Your task to perform on an android device: Go to internet settings Image 0: 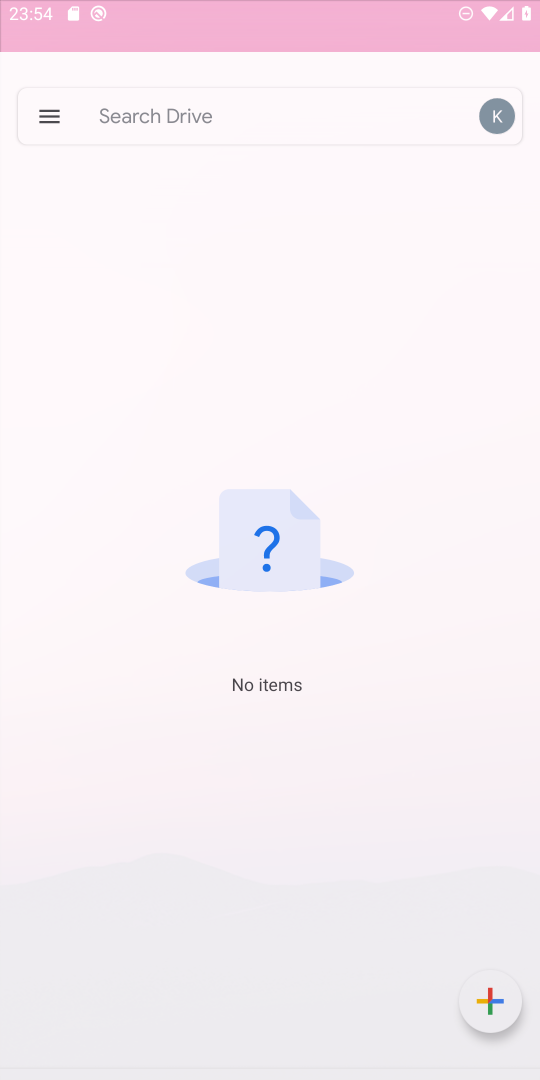
Step 0: press home button
Your task to perform on an android device: Go to internet settings Image 1: 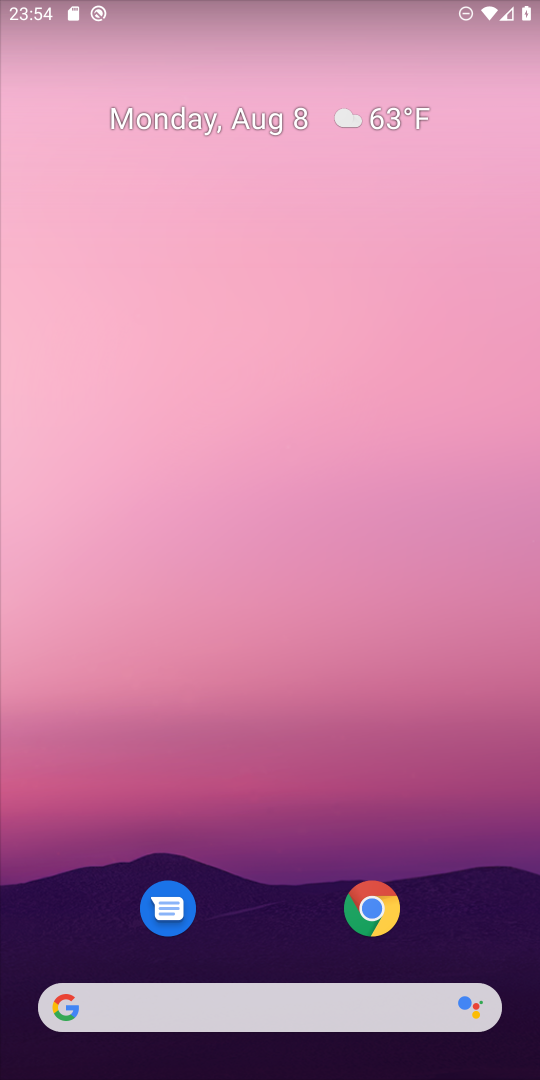
Step 1: drag from (288, 930) to (284, 103)
Your task to perform on an android device: Go to internet settings Image 2: 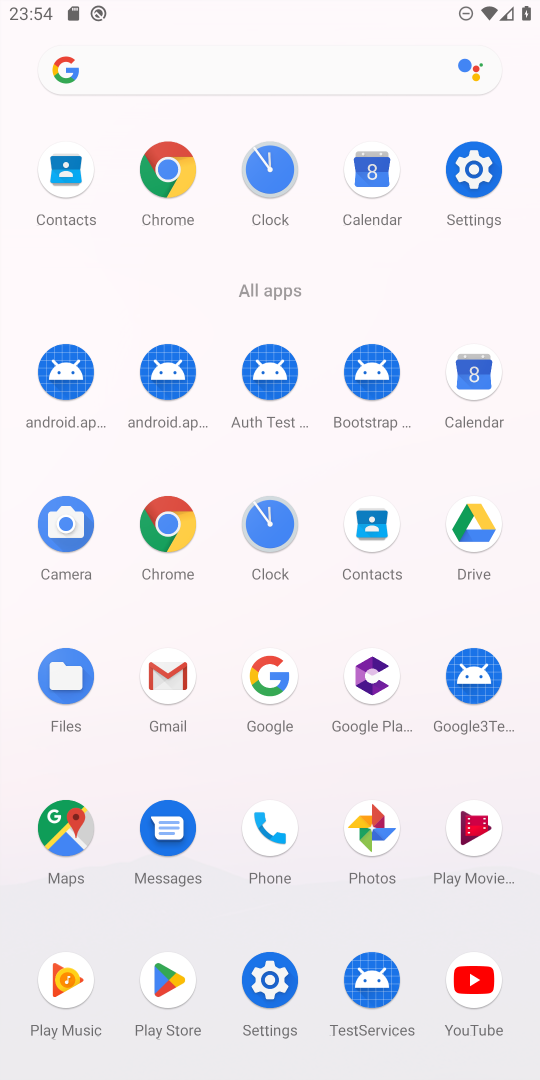
Step 2: click (488, 185)
Your task to perform on an android device: Go to internet settings Image 3: 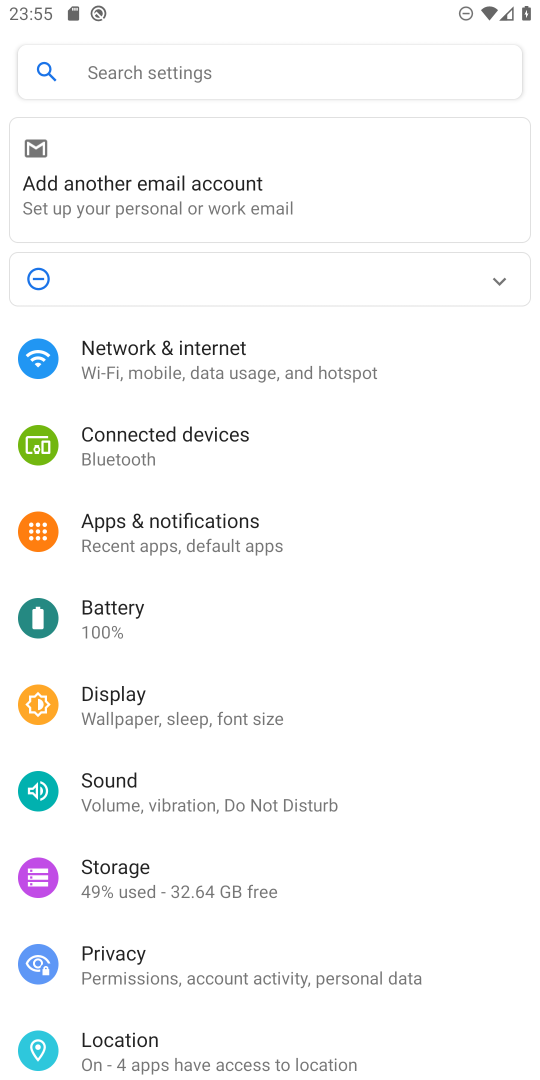
Step 3: click (270, 364)
Your task to perform on an android device: Go to internet settings Image 4: 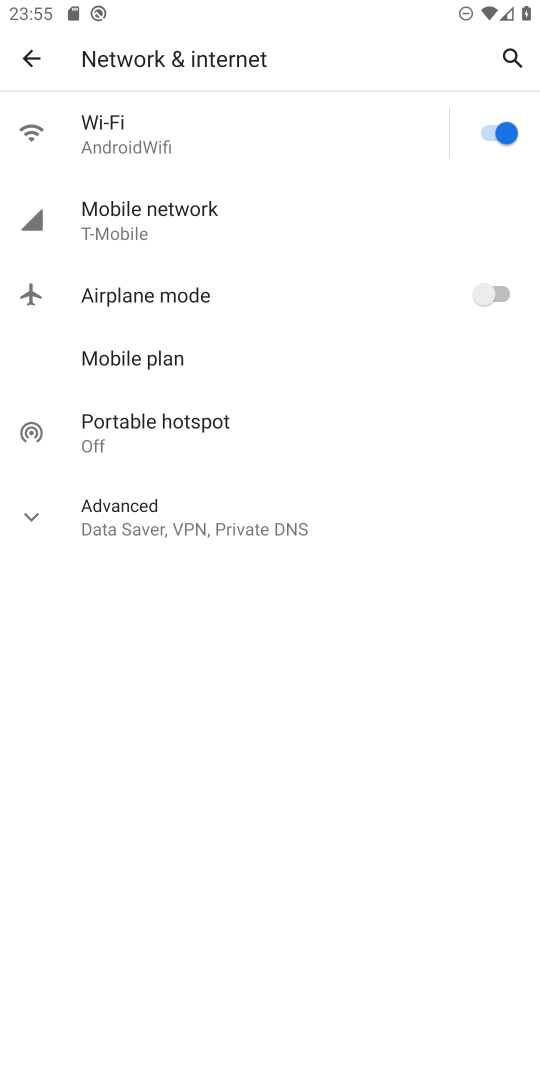
Step 4: task complete